Your task to perform on an android device: Show me popular videos on Youtube Image 0: 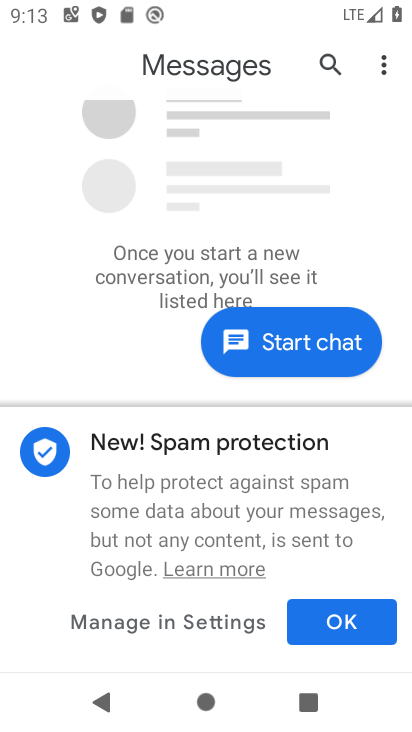
Step 0: press home button
Your task to perform on an android device: Show me popular videos on Youtube Image 1: 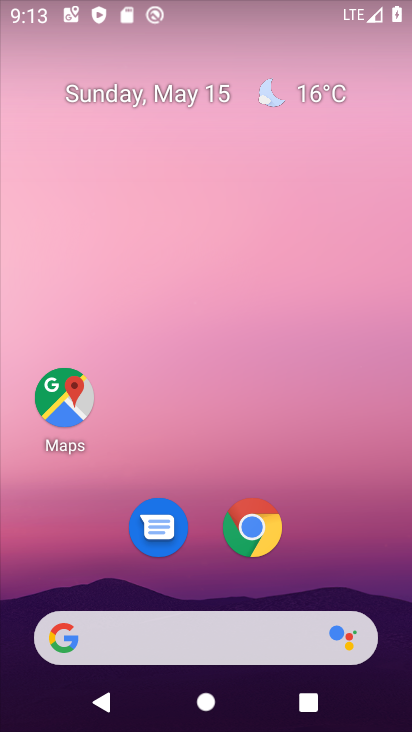
Step 1: drag from (354, 571) to (294, 1)
Your task to perform on an android device: Show me popular videos on Youtube Image 2: 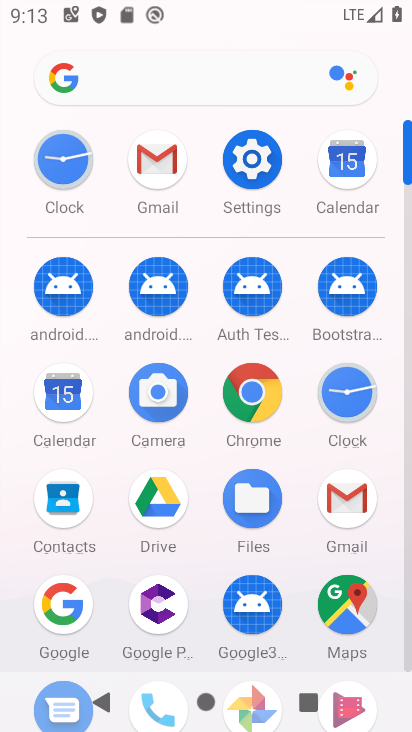
Step 2: drag from (411, 602) to (406, 504)
Your task to perform on an android device: Show me popular videos on Youtube Image 3: 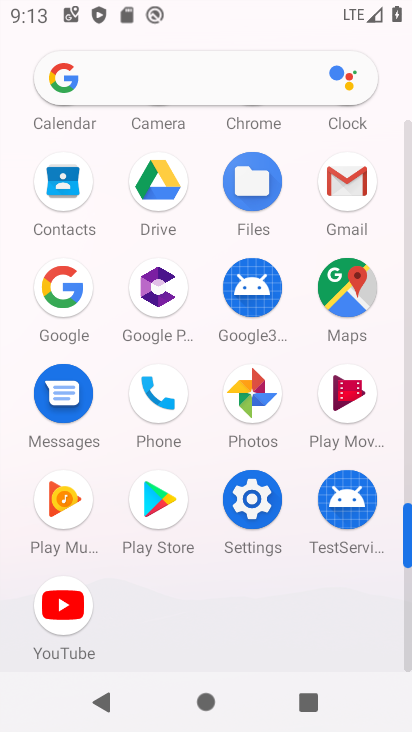
Step 3: click (60, 602)
Your task to perform on an android device: Show me popular videos on Youtube Image 4: 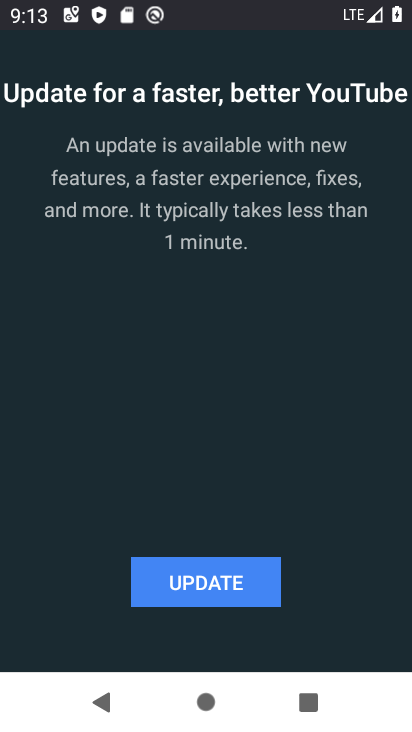
Step 4: click (237, 587)
Your task to perform on an android device: Show me popular videos on Youtube Image 5: 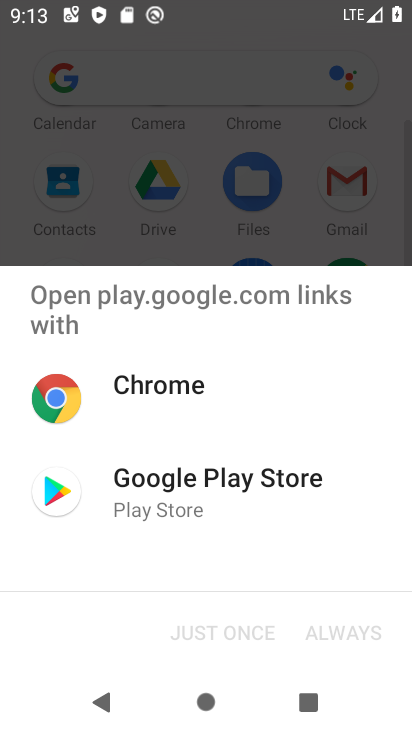
Step 5: click (162, 489)
Your task to perform on an android device: Show me popular videos on Youtube Image 6: 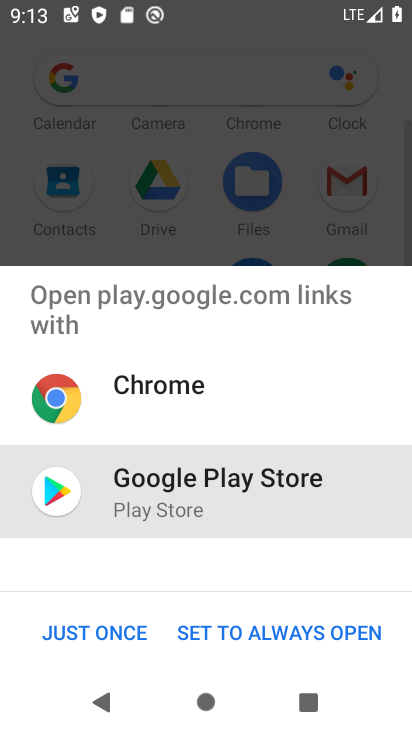
Step 6: click (77, 630)
Your task to perform on an android device: Show me popular videos on Youtube Image 7: 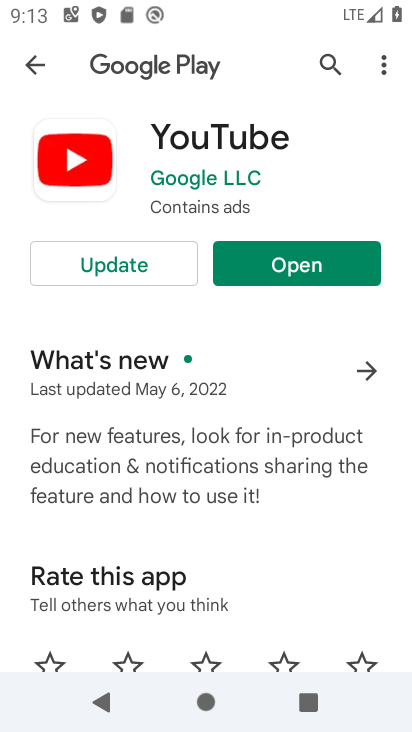
Step 7: click (113, 257)
Your task to perform on an android device: Show me popular videos on Youtube Image 8: 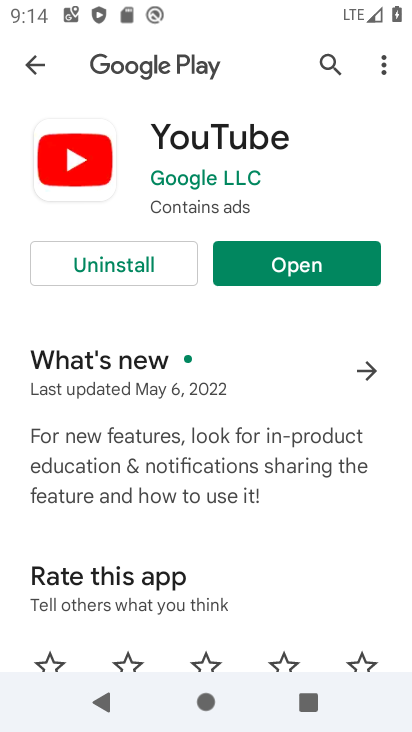
Step 8: click (293, 255)
Your task to perform on an android device: Show me popular videos on Youtube Image 9: 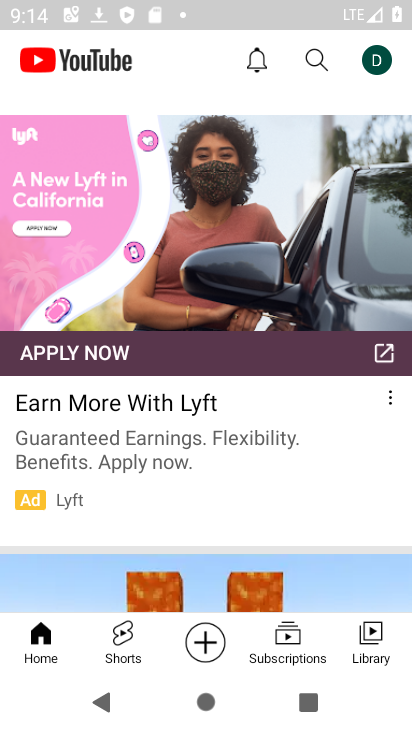
Step 9: task complete